Your task to perform on an android device: toggle sleep mode Image 0: 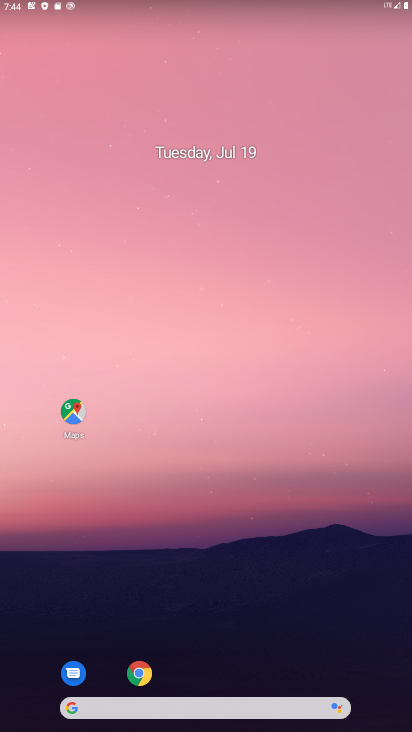
Step 0: drag from (328, 646) to (199, 0)
Your task to perform on an android device: toggle sleep mode Image 1: 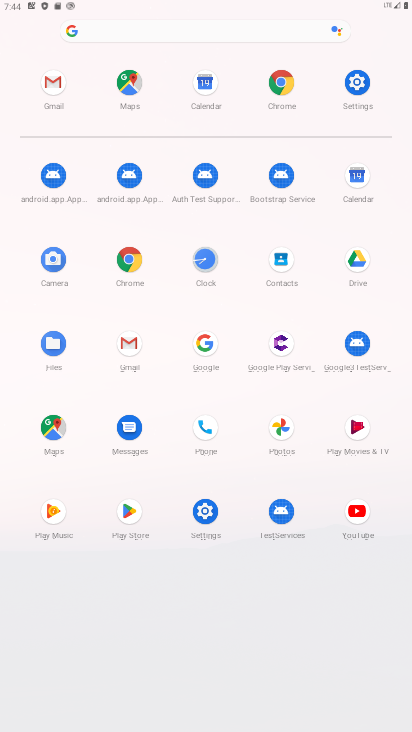
Step 1: click (212, 514)
Your task to perform on an android device: toggle sleep mode Image 2: 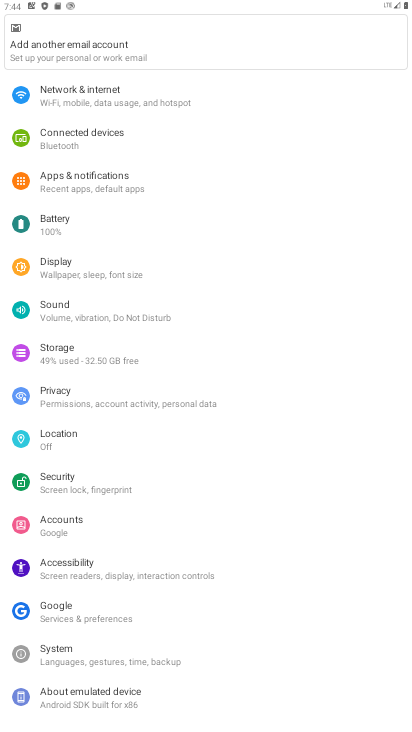
Step 2: task complete